Your task to perform on an android device: turn off priority inbox in the gmail app Image 0: 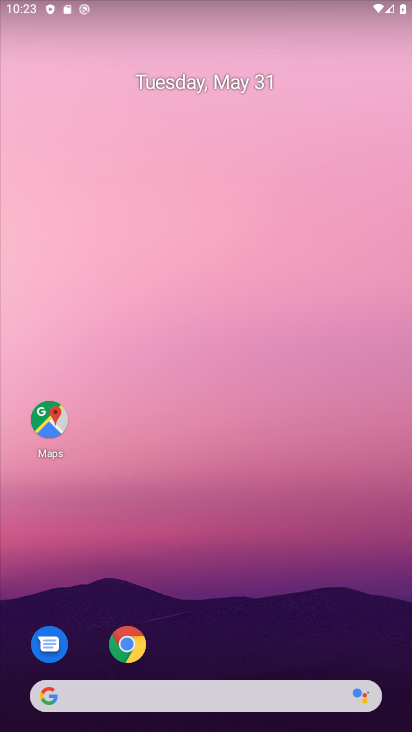
Step 0: drag from (78, 578) to (97, 199)
Your task to perform on an android device: turn off priority inbox in the gmail app Image 1: 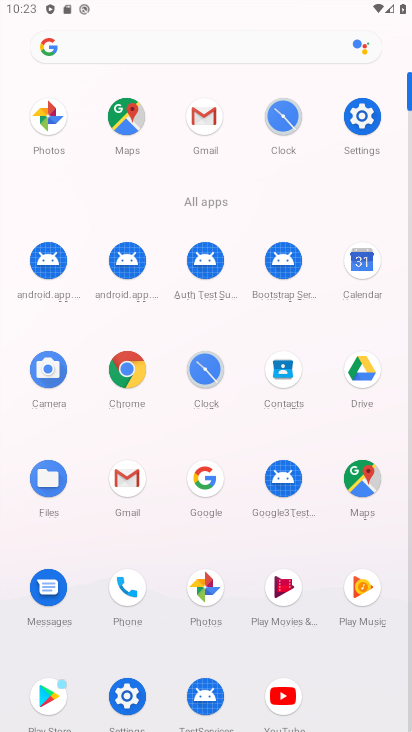
Step 1: click (122, 485)
Your task to perform on an android device: turn off priority inbox in the gmail app Image 2: 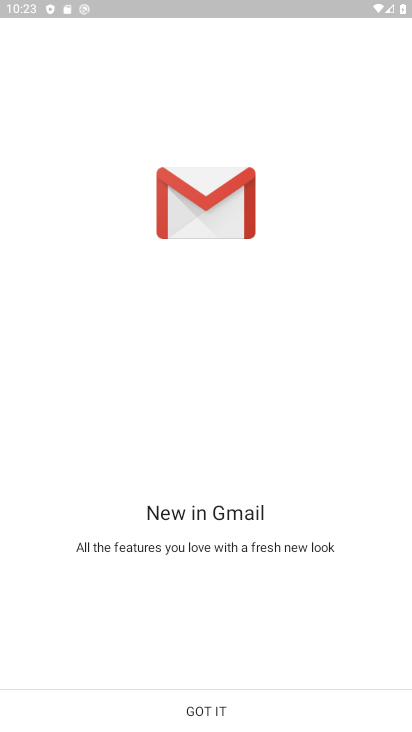
Step 2: click (225, 712)
Your task to perform on an android device: turn off priority inbox in the gmail app Image 3: 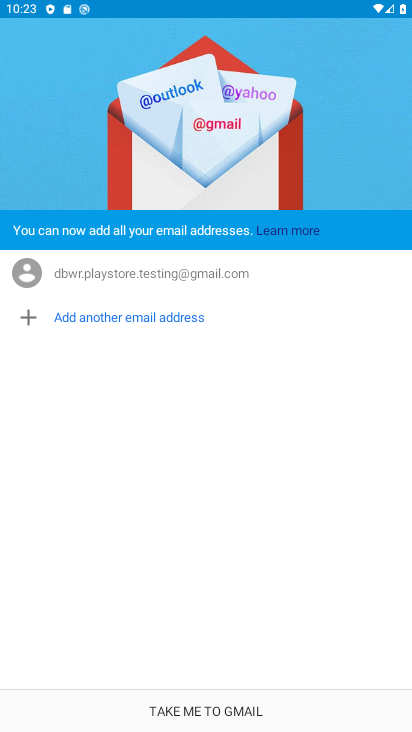
Step 3: click (228, 713)
Your task to perform on an android device: turn off priority inbox in the gmail app Image 4: 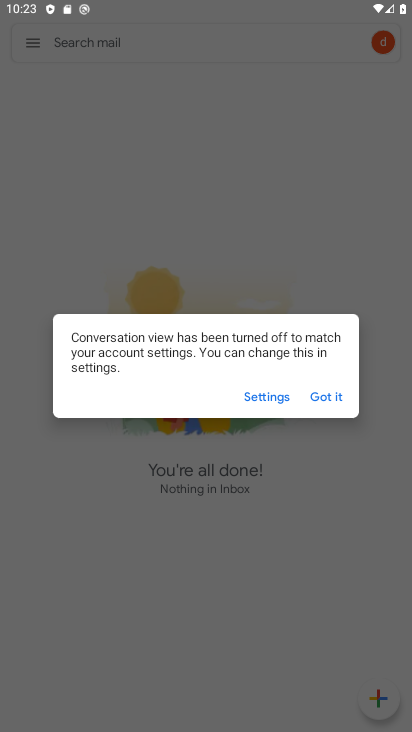
Step 4: click (332, 392)
Your task to perform on an android device: turn off priority inbox in the gmail app Image 5: 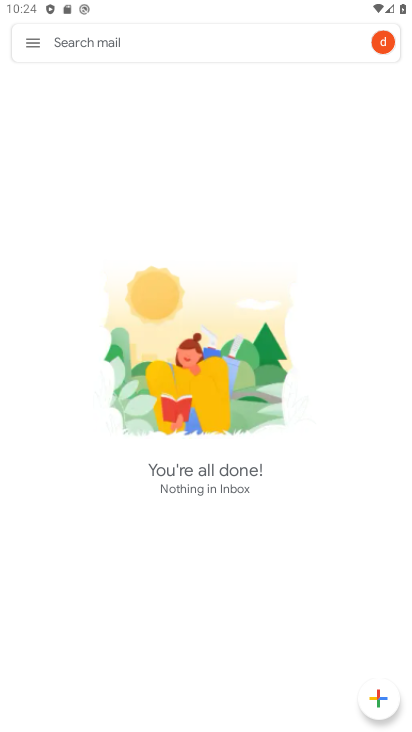
Step 5: click (29, 39)
Your task to perform on an android device: turn off priority inbox in the gmail app Image 6: 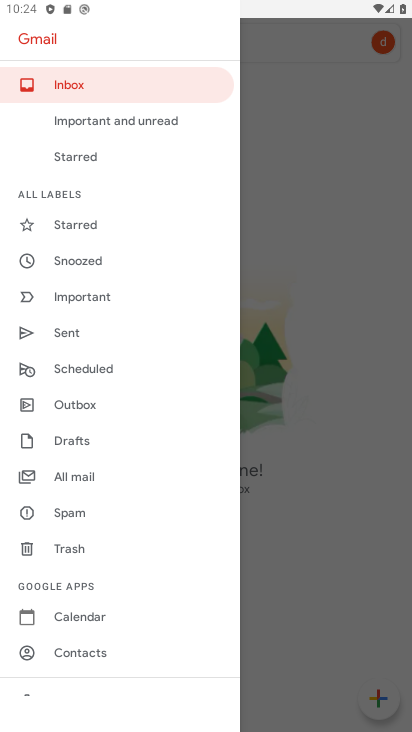
Step 6: drag from (96, 605) to (209, 172)
Your task to perform on an android device: turn off priority inbox in the gmail app Image 7: 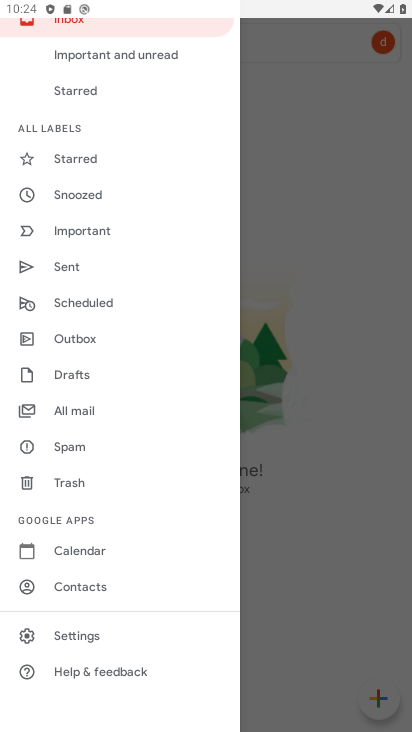
Step 7: click (84, 642)
Your task to perform on an android device: turn off priority inbox in the gmail app Image 8: 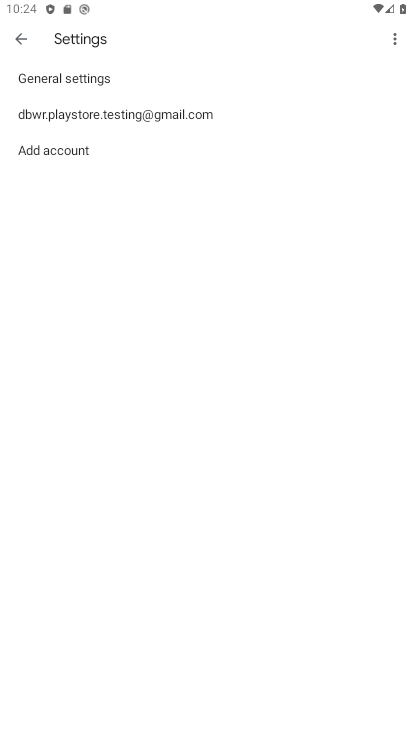
Step 8: click (77, 106)
Your task to perform on an android device: turn off priority inbox in the gmail app Image 9: 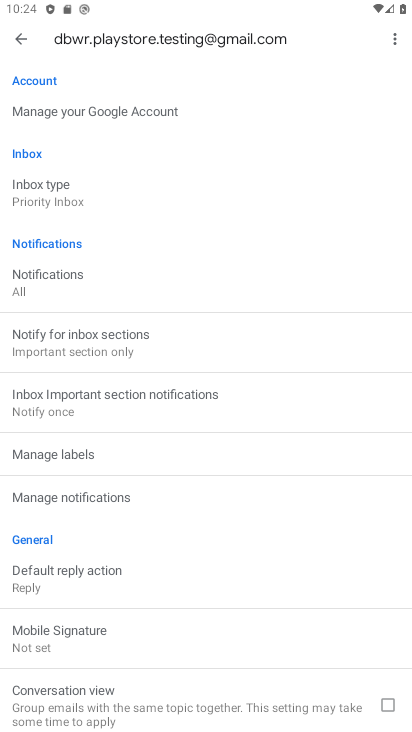
Step 9: click (68, 201)
Your task to perform on an android device: turn off priority inbox in the gmail app Image 10: 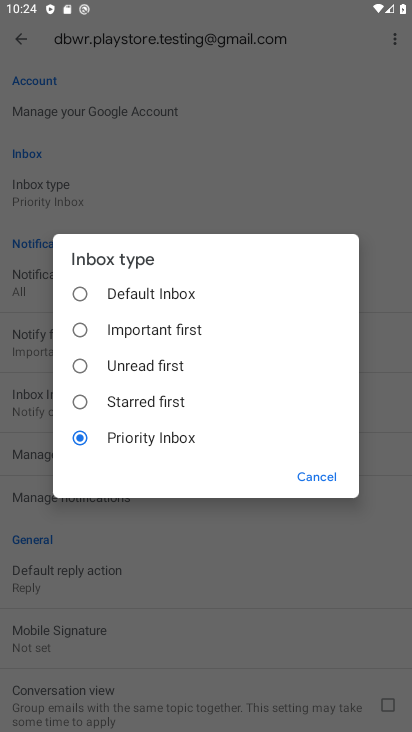
Step 10: click (148, 309)
Your task to perform on an android device: turn off priority inbox in the gmail app Image 11: 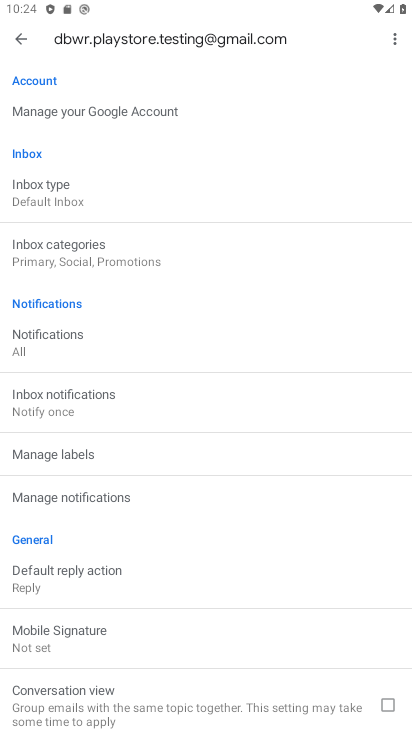
Step 11: task complete